Your task to perform on an android device: Open notification settings Image 0: 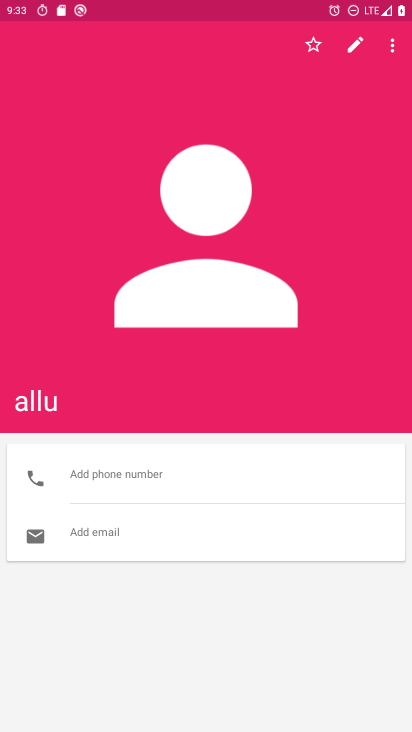
Step 0: press home button
Your task to perform on an android device: Open notification settings Image 1: 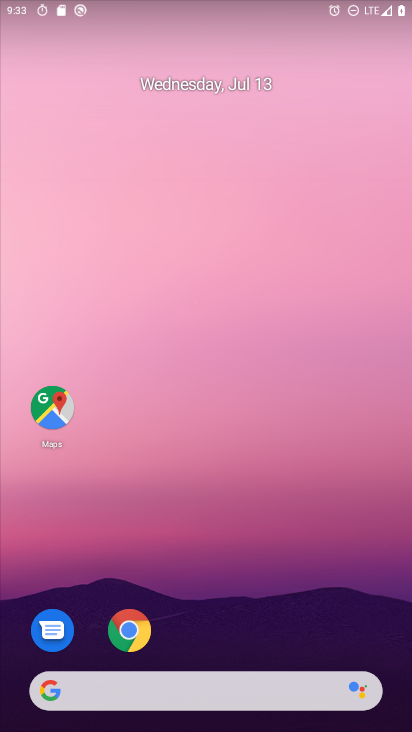
Step 1: drag from (390, 673) to (256, 9)
Your task to perform on an android device: Open notification settings Image 2: 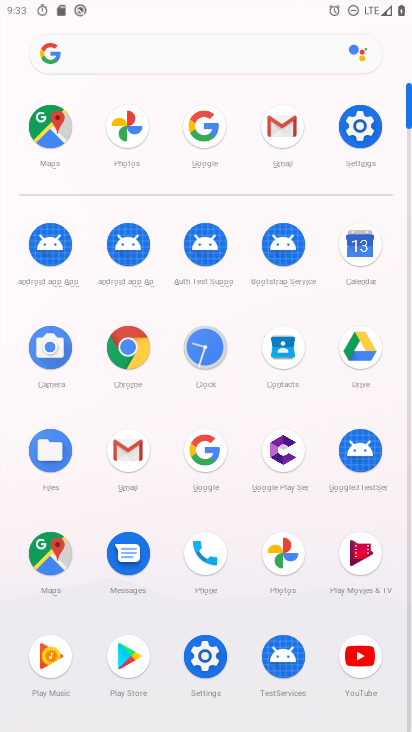
Step 2: click (361, 115)
Your task to perform on an android device: Open notification settings Image 3: 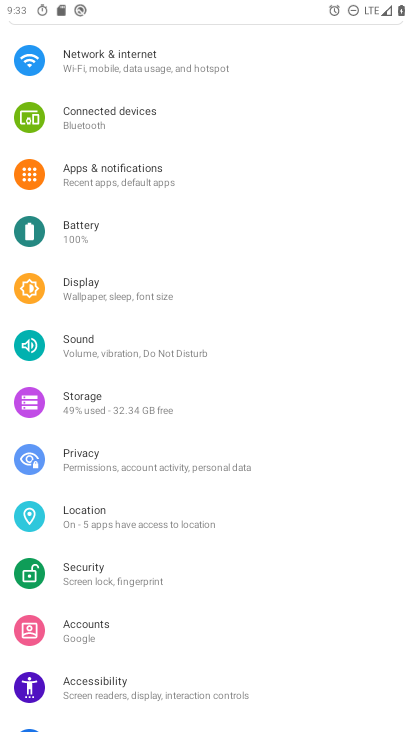
Step 3: click (110, 180)
Your task to perform on an android device: Open notification settings Image 4: 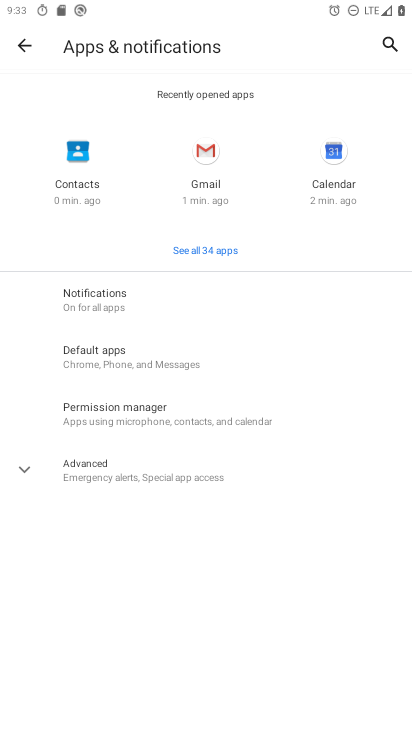
Step 4: click (102, 303)
Your task to perform on an android device: Open notification settings Image 5: 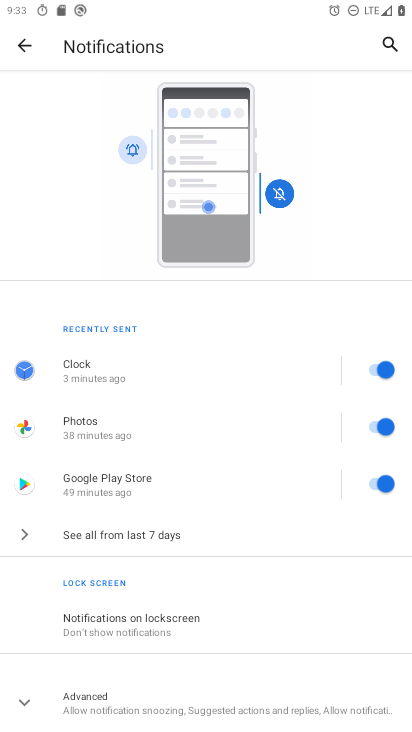
Step 5: task complete